Your task to perform on an android device: empty trash in the gmail app Image 0: 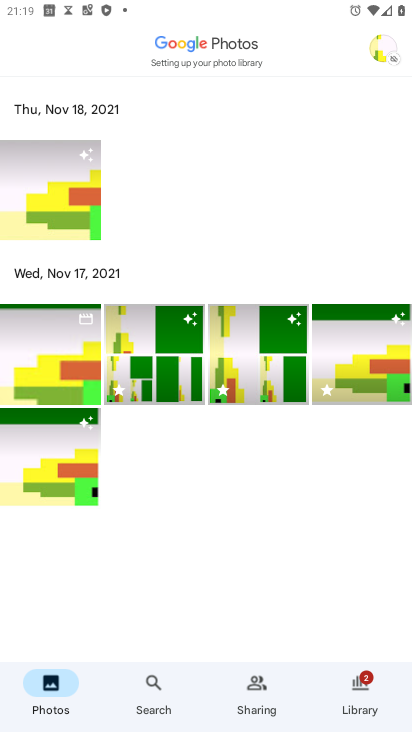
Step 0: press home button
Your task to perform on an android device: empty trash in the gmail app Image 1: 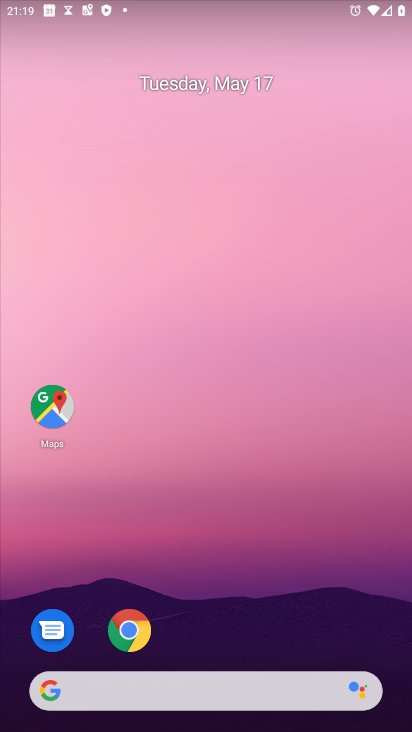
Step 1: drag from (233, 581) to (223, 58)
Your task to perform on an android device: empty trash in the gmail app Image 2: 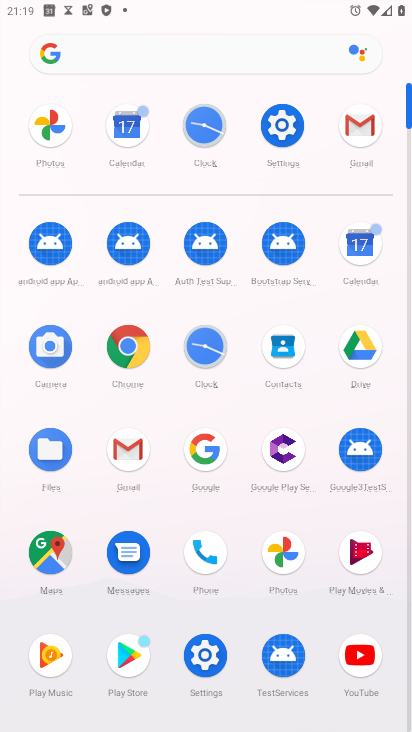
Step 2: click (369, 129)
Your task to perform on an android device: empty trash in the gmail app Image 3: 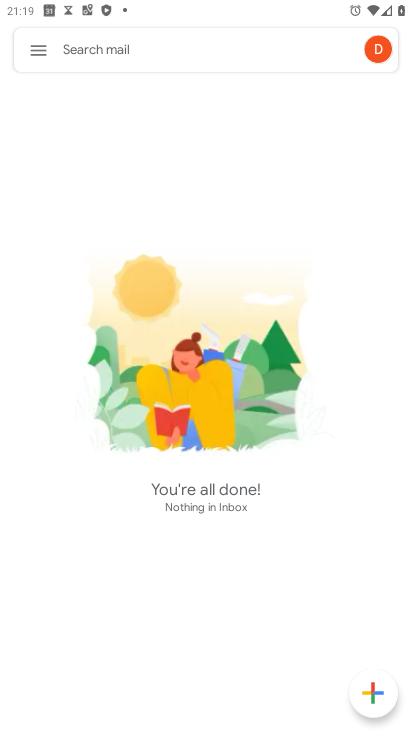
Step 3: click (44, 49)
Your task to perform on an android device: empty trash in the gmail app Image 4: 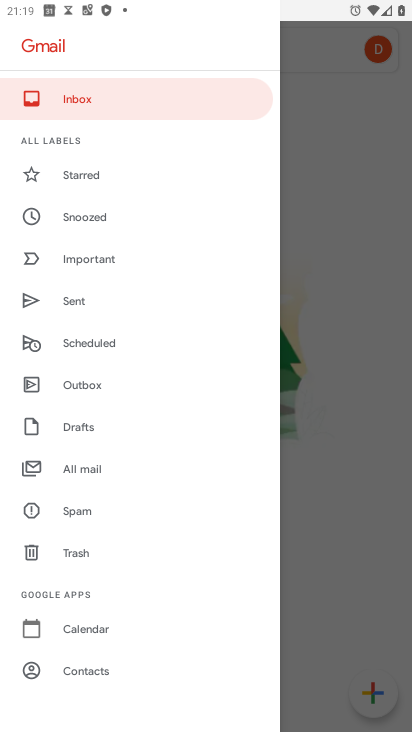
Step 4: click (90, 556)
Your task to perform on an android device: empty trash in the gmail app Image 5: 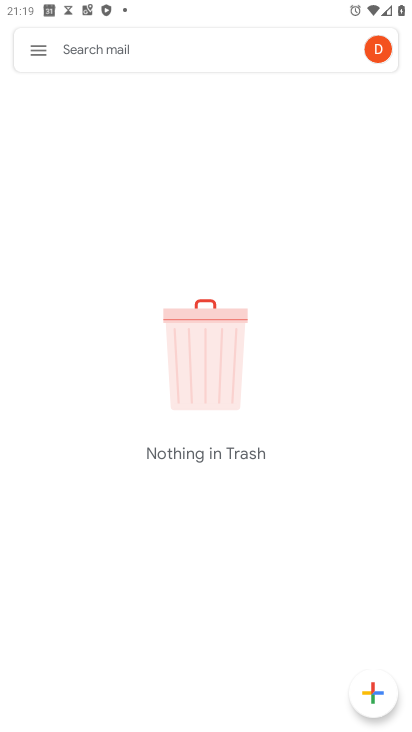
Step 5: task complete